Your task to perform on an android device: check storage Image 0: 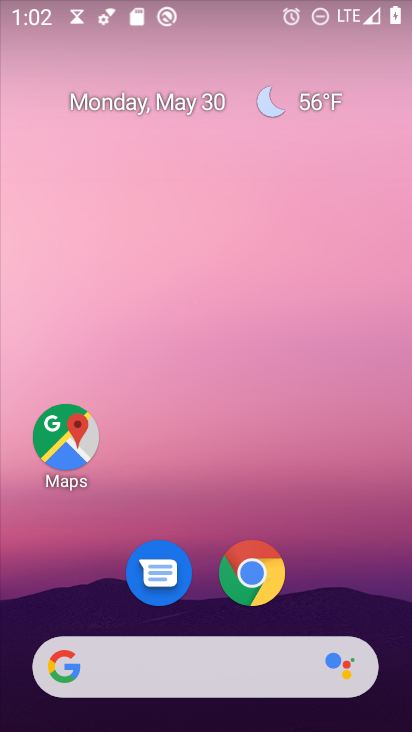
Step 0: drag from (231, 679) to (267, 16)
Your task to perform on an android device: check storage Image 1: 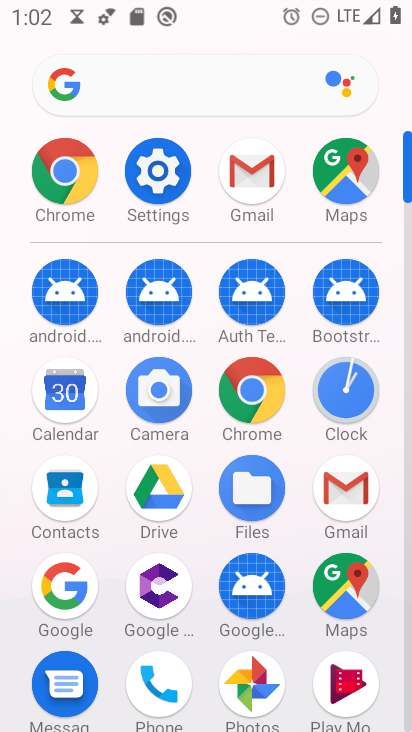
Step 1: click (174, 164)
Your task to perform on an android device: check storage Image 2: 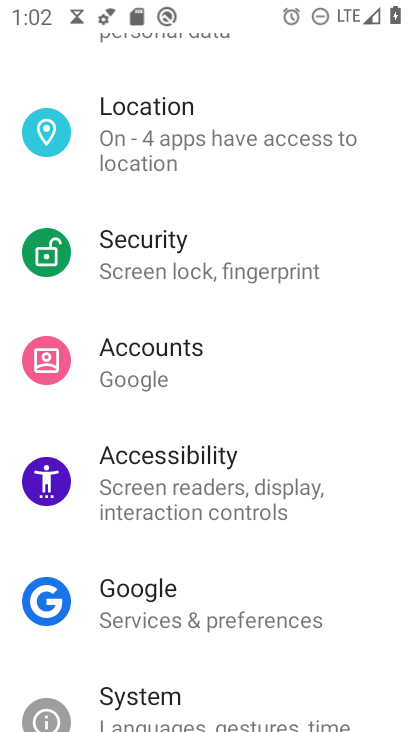
Step 2: drag from (211, 186) to (257, 658)
Your task to perform on an android device: check storage Image 3: 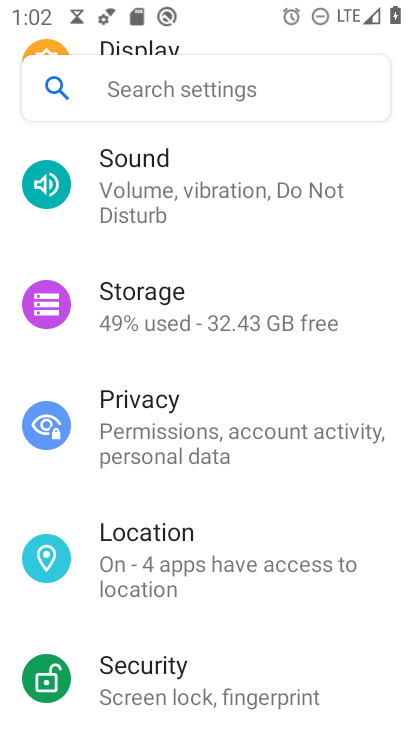
Step 3: click (244, 325)
Your task to perform on an android device: check storage Image 4: 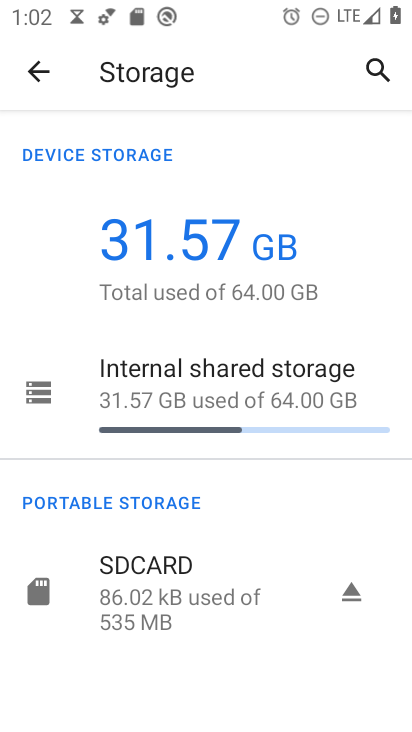
Step 4: task complete